Your task to perform on an android device: turn on location history Image 0: 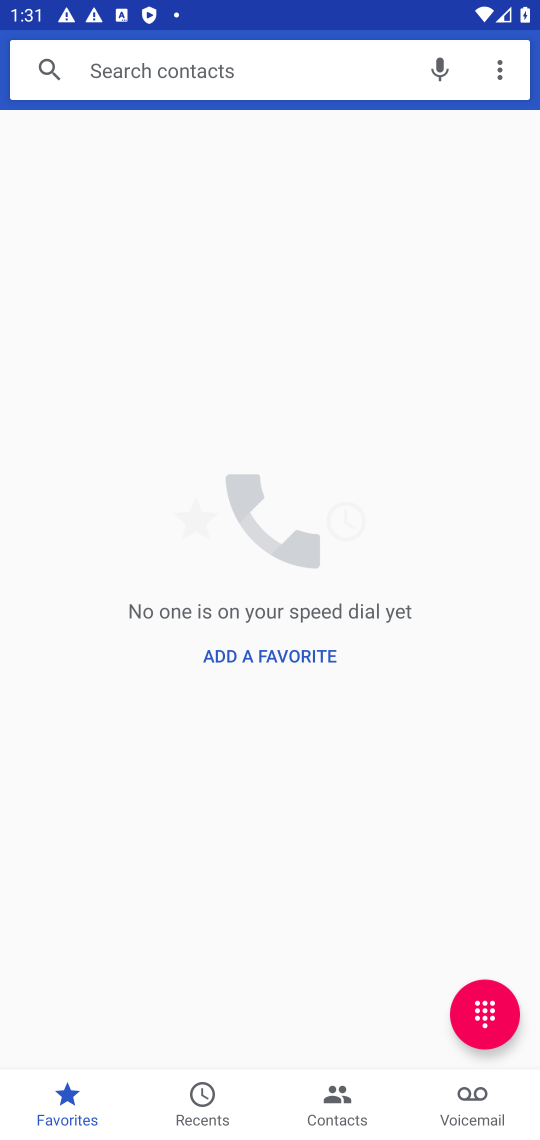
Step 0: press home button
Your task to perform on an android device: turn on location history Image 1: 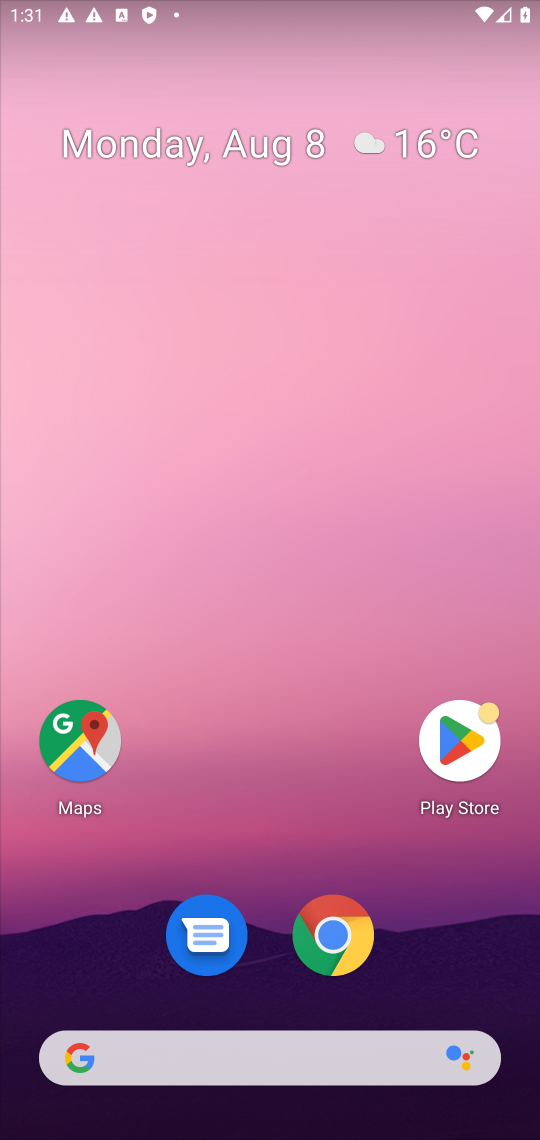
Step 1: drag from (261, 1062) to (218, 300)
Your task to perform on an android device: turn on location history Image 2: 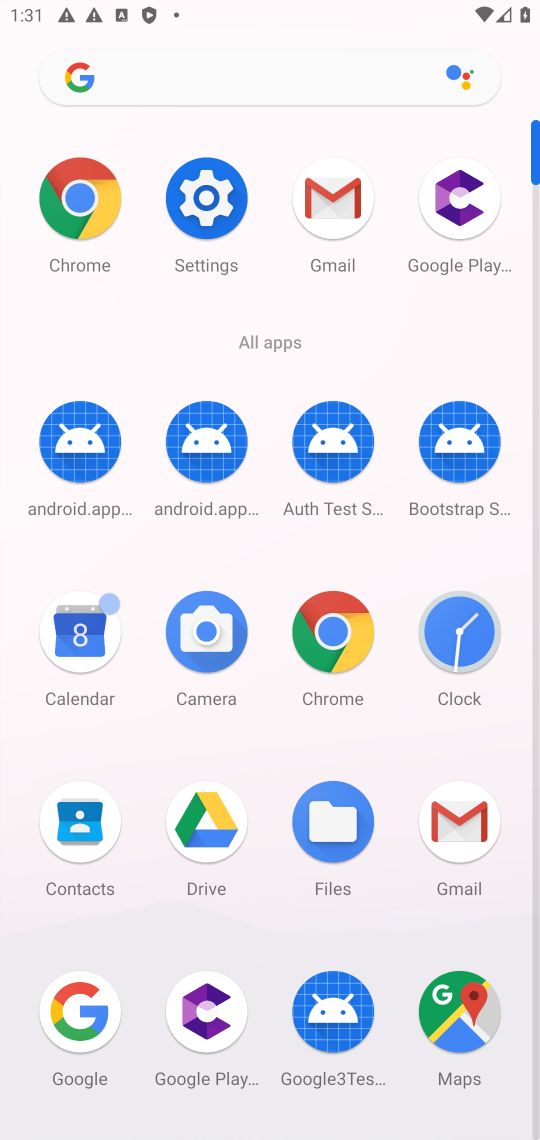
Step 2: click (213, 225)
Your task to perform on an android device: turn on location history Image 3: 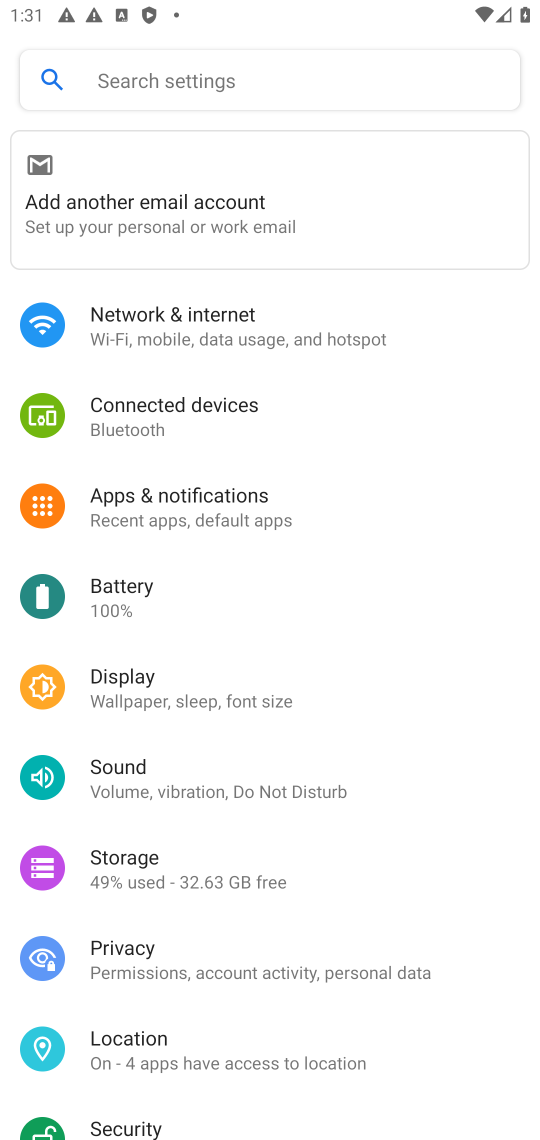
Step 3: click (149, 1057)
Your task to perform on an android device: turn on location history Image 4: 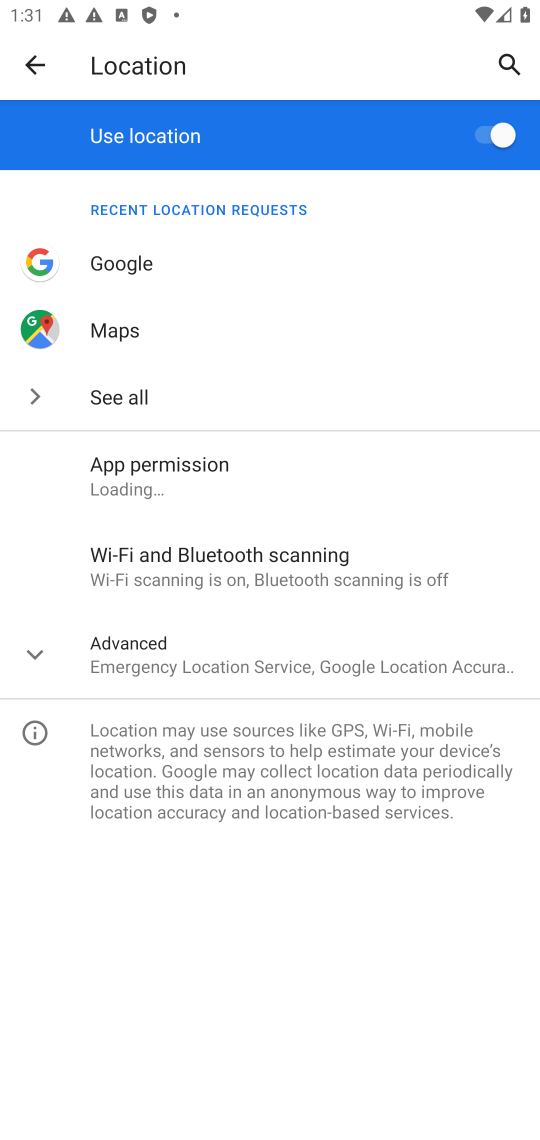
Step 4: click (212, 655)
Your task to perform on an android device: turn on location history Image 5: 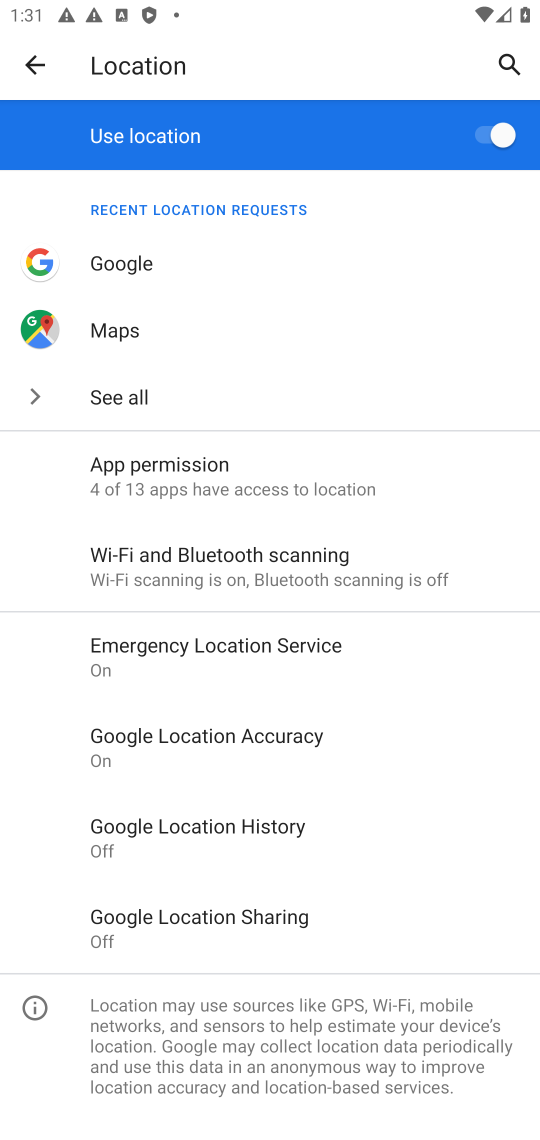
Step 5: click (172, 852)
Your task to perform on an android device: turn on location history Image 6: 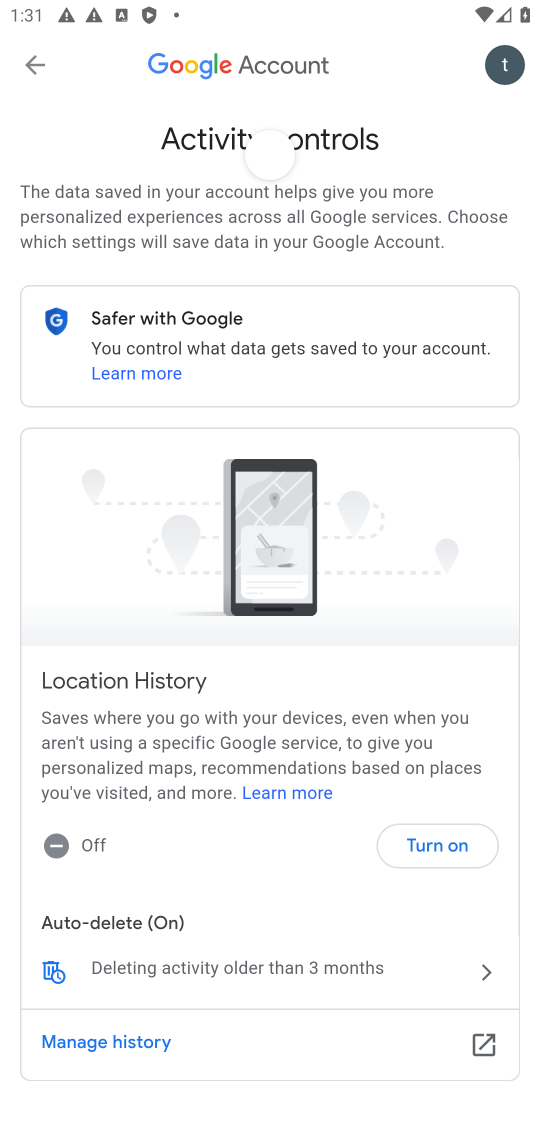
Step 6: click (453, 840)
Your task to perform on an android device: turn on location history Image 7: 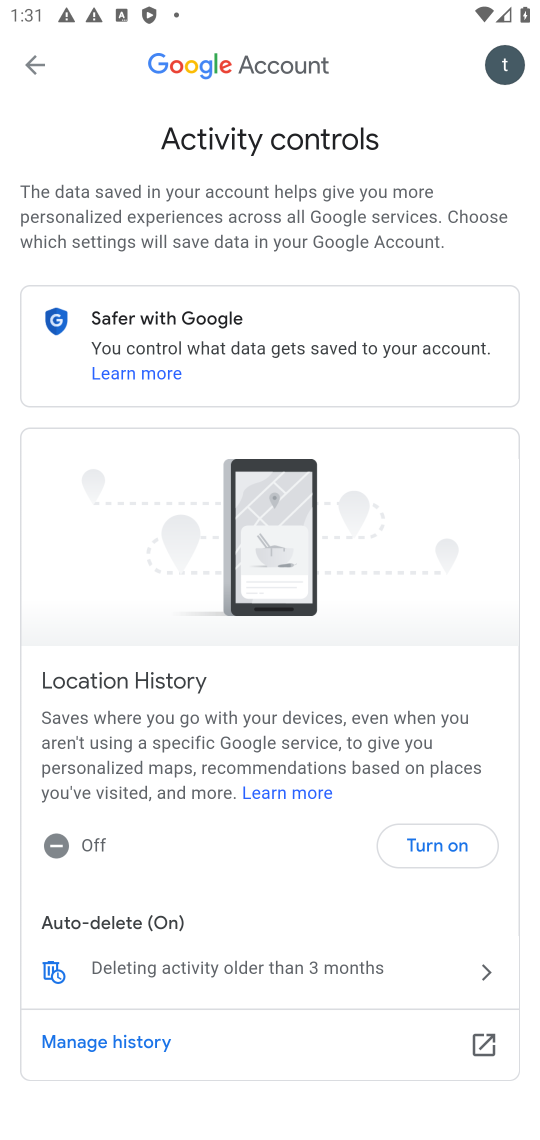
Step 7: click (453, 840)
Your task to perform on an android device: turn on location history Image 8: 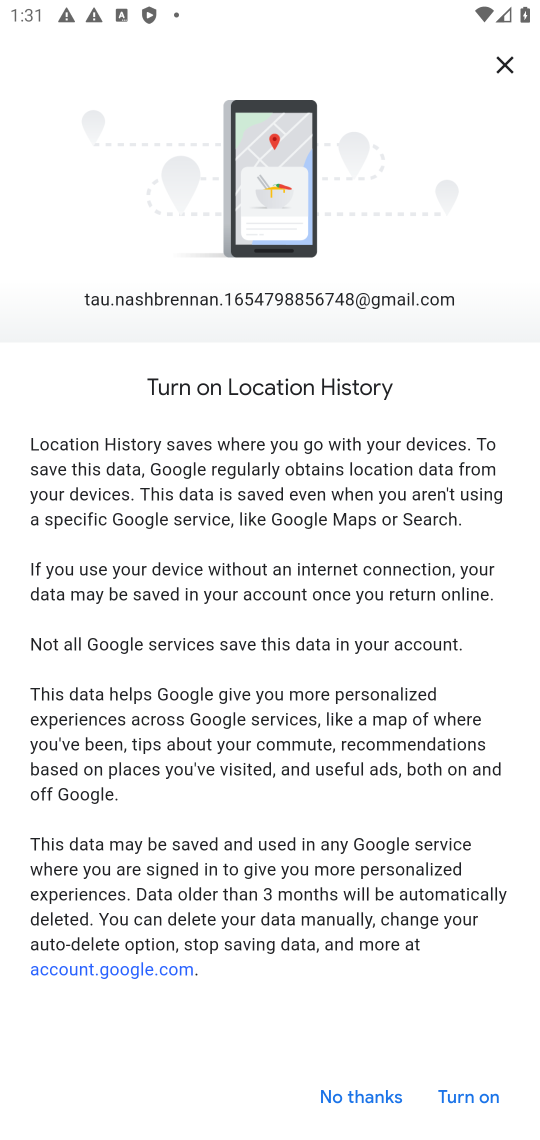
Step 8: click (486, 1097)
Your task to perform on an android device: turn on location history Image 9: 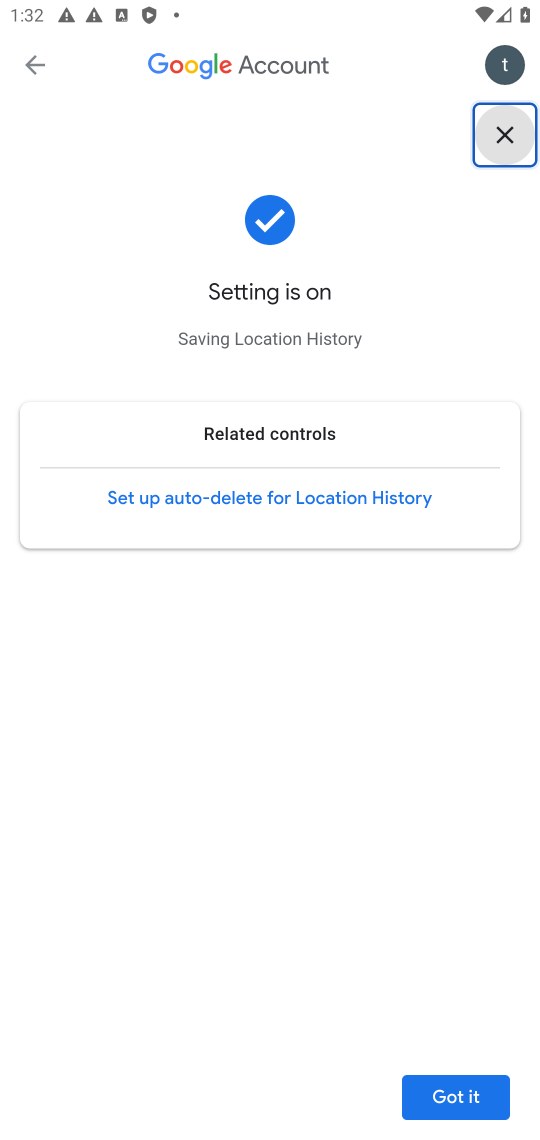
Step 9: task complete